Your task to perform on an android device: Open settings Image 0: 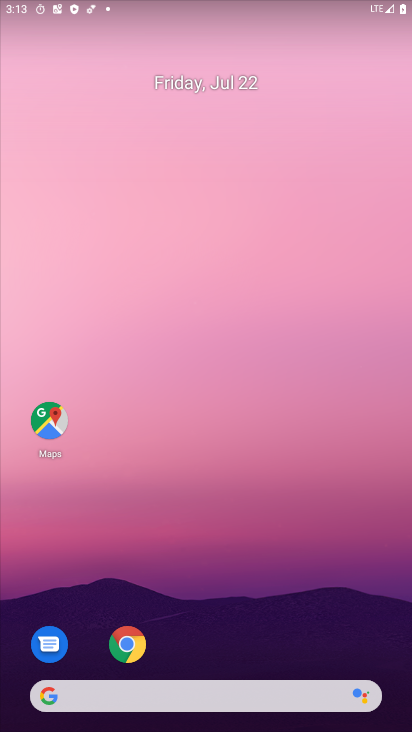
Step 0: drag from (225, 618) to (221, 6)
Your task to perform on an android device: Open settings Image 1: 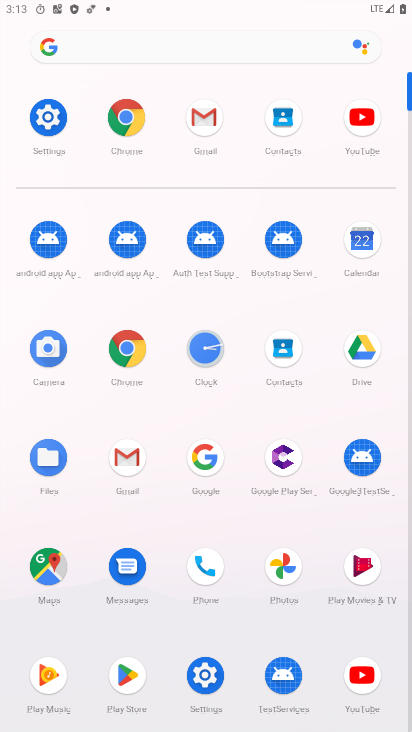
Step 1: click (42, 119)
Your task to perform on an android device: Open settings Image 2: 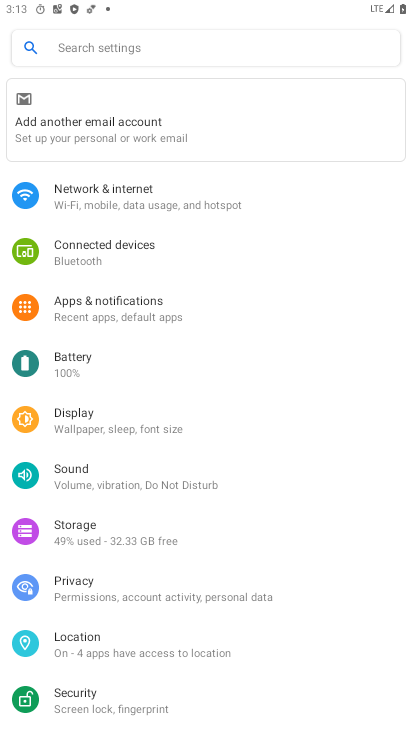
Step 2: task complete